Your task to perform on an android device: turn on bluetooth scan Image 0: 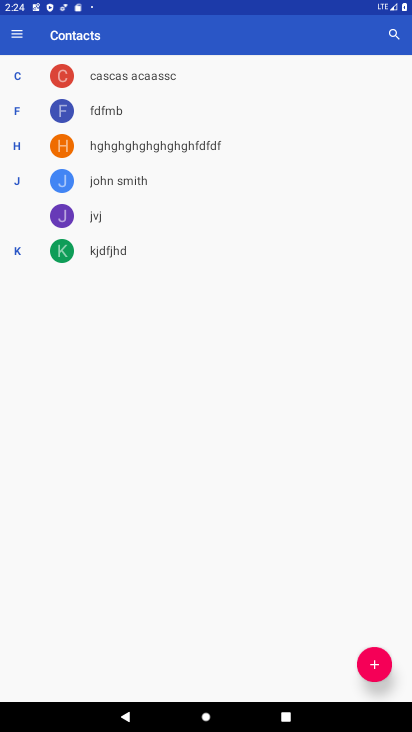
Step 0: press home button
Your task to perform on an android device: turn on bluetooth scan Image 1: 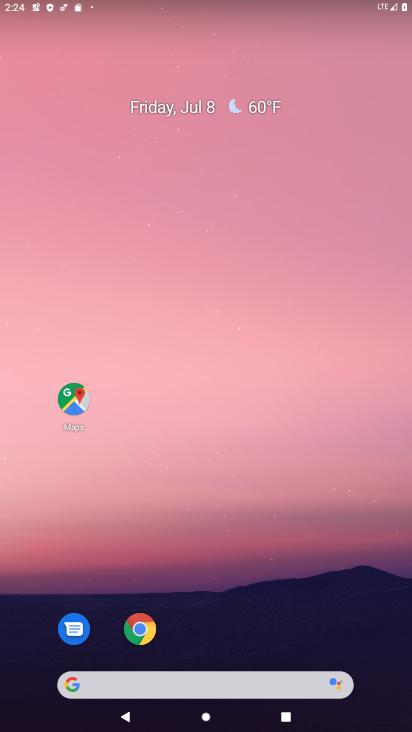
Step 1: drag from (198, 636) to (200, 198)
Your task to perform on an android device: turn on bluetooth scan Image 2: 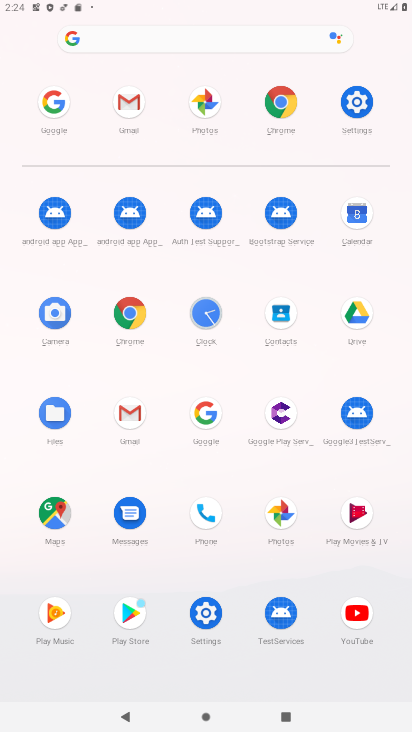
Step 2: click (360, 102)
Your task to perform on an android device: turn on bluetooth scan Image 3: 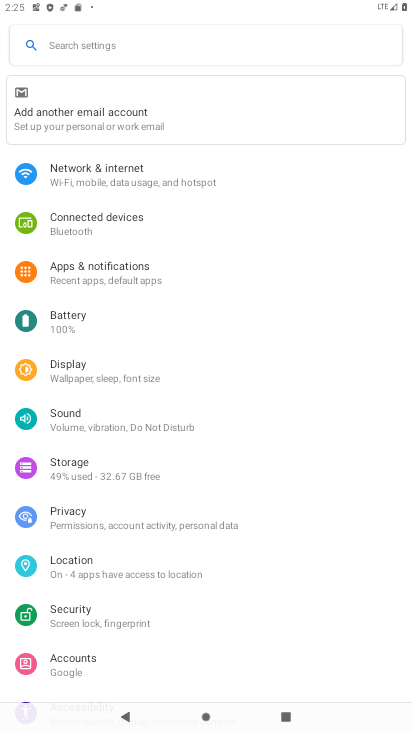
Step 3: click (107, 561)
Your task to perform on an android device: turn on bluetooth scan Image 4: 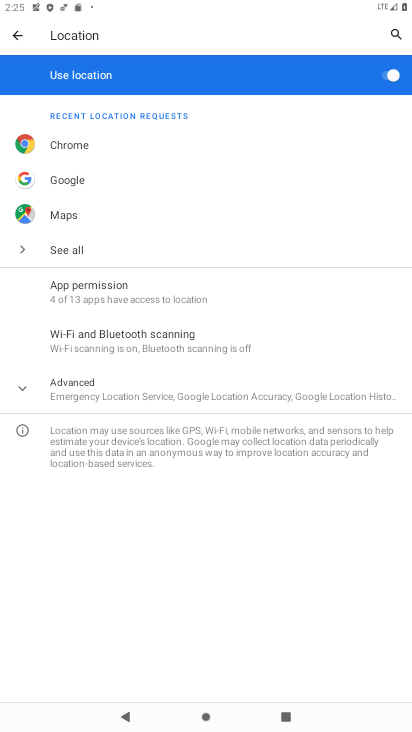
Step 4: click (182, 353)
Your task to perform on an android device: turn on bluetooth scan Image 5: 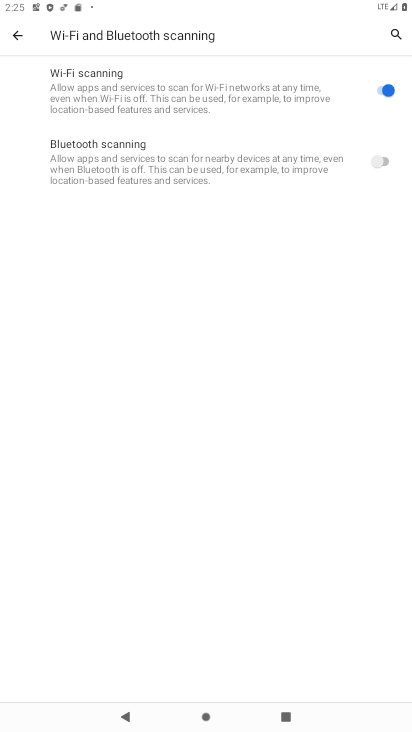
Step 5: click (381, 160)
Your task to perform on an android device: turn on bluetooth scan Image 6: 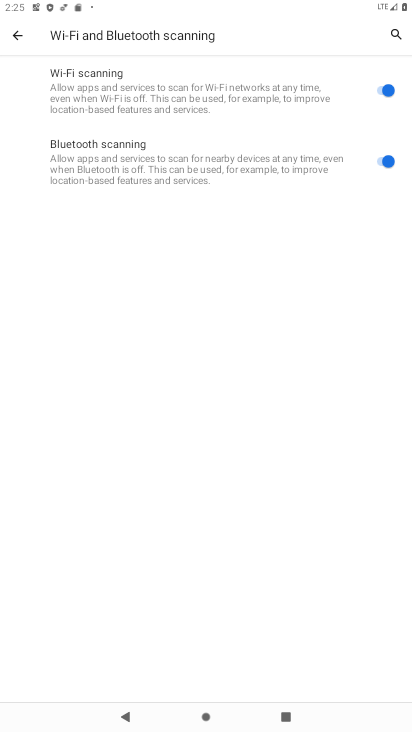
Step 6: click (379, 162)
Your task to perform on an android device: turn on bluetooth scan Image 7: 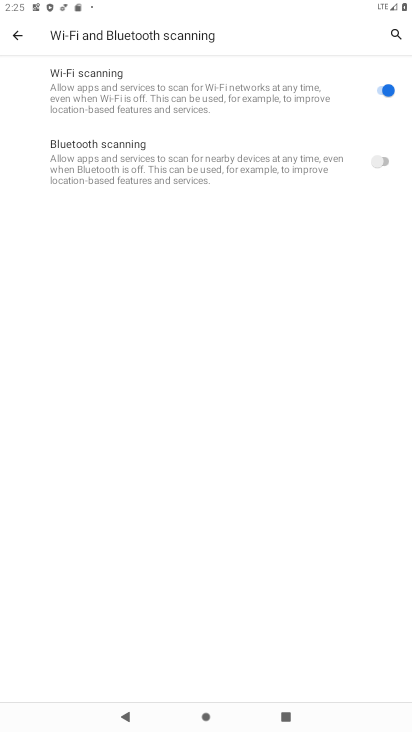
Step 7: click (383, 161)
Your task to perform on an android device: turn on bluetooth scan Image 8: 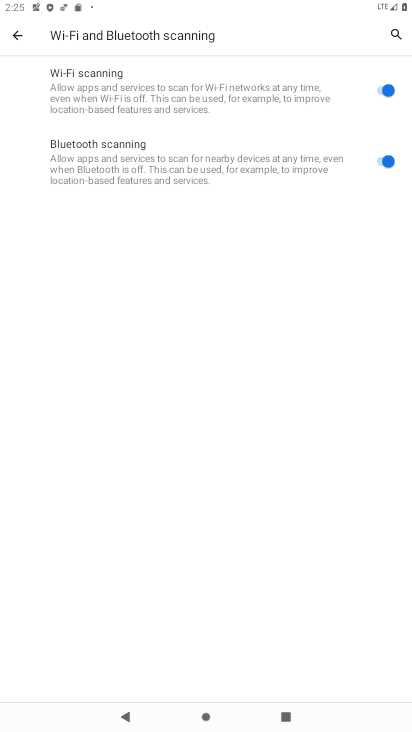
Step 8: task complete